Your task to perform on an android device: Go to Android settings Image 0: 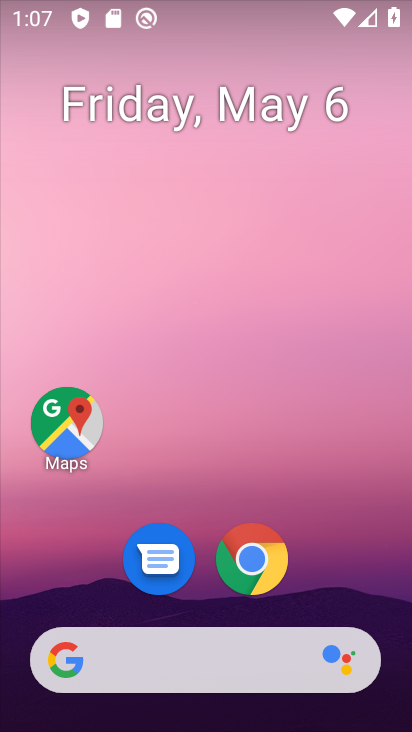
Step 0: drag from (201, 645) to (344, 40)
Your task to perform on an android device: Go to Android settings Image 1: 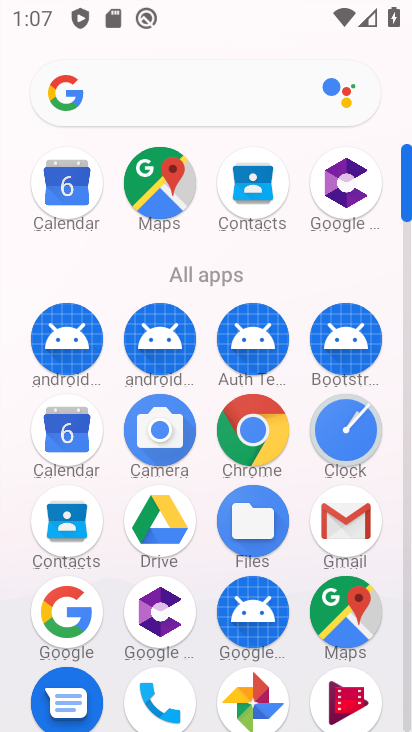
Step 1: drag from (189, 637) to (297, 174)
Your task to perform on an android device: Go to Android settings Image 2: 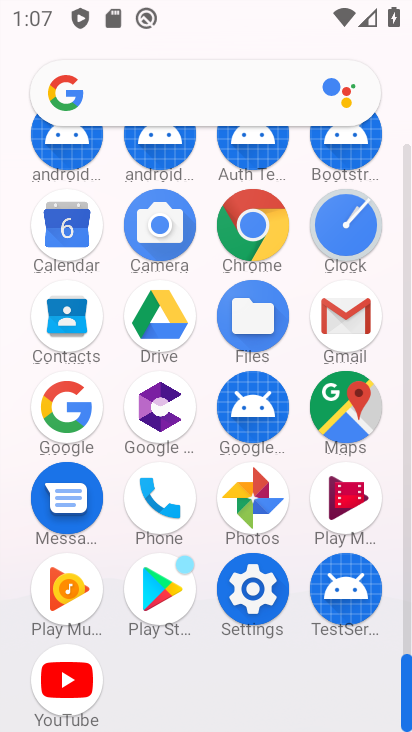
Step 2: click (253, 600)
Your task to perform on an android device: Go to Android settings Image 3: 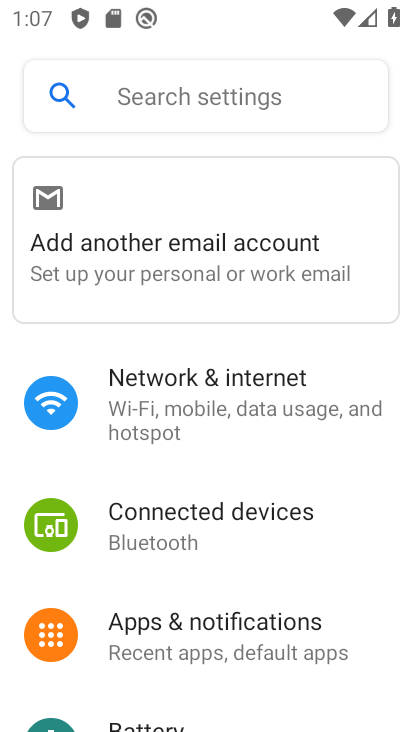
Step 3: task complete